Your task to perform on an android device: allow notifications from all sites in the chrome app Image 0: 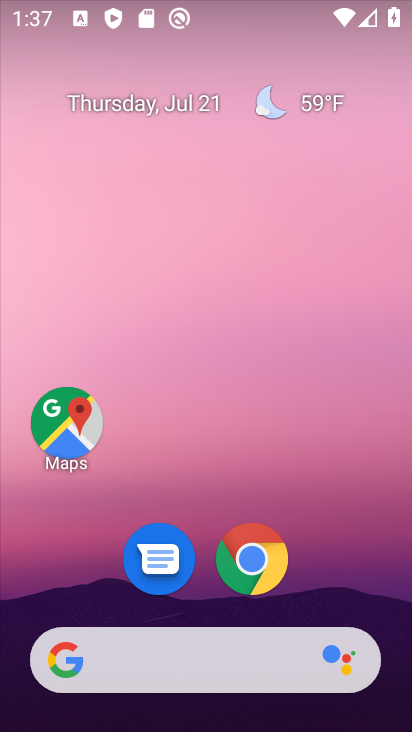
Step 0: drag from (244, 699) to (176, 116)
Your task to perform on an android device: allow notifications from all sites in the chrome app Image 1: 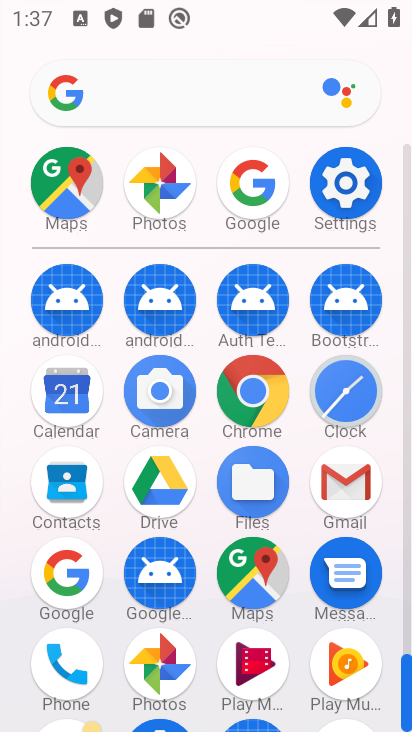
Step 1: click (259, 388)
Your task to perform on an android device: allow notifications from all sites in the chrome app Image 2: 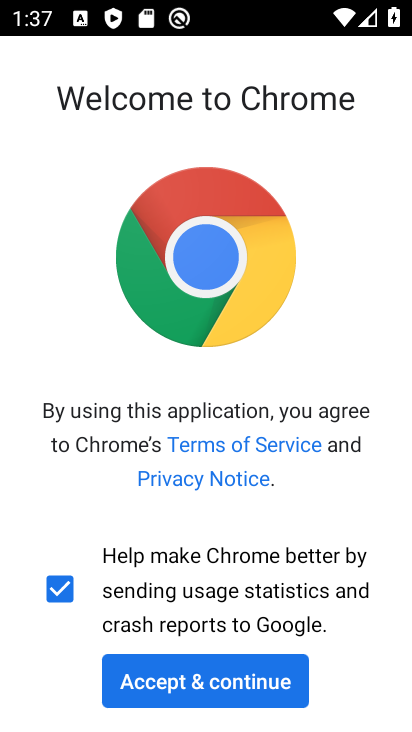
Step 2: click (186, 688)
Your task to perform on an android device: allow notifications from all sites in the chrome app Image 3: 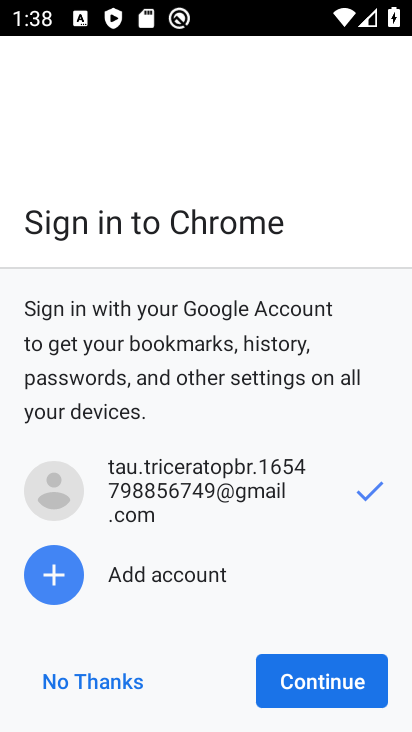
Step 3: click (327, 672)
Your task to perform on an android device: allow notifications from all sites in the chrome app Image 4: 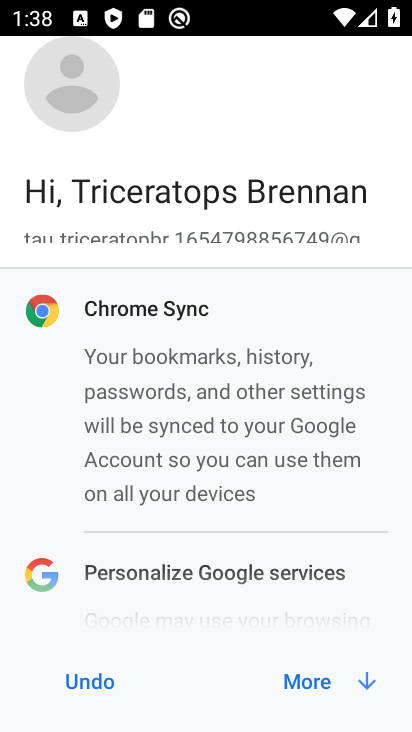
Step 4: click (326, 692)
Your task to perform on an android device: allow notifications from all sites in the chrome app Image 5: 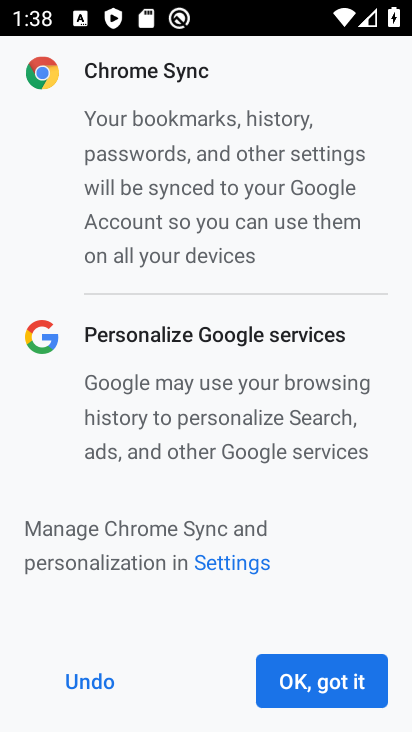
Step 5: click (323, 689)
Your task to perform on an android device: allow notifications from all sites in the chrome app Image 6: 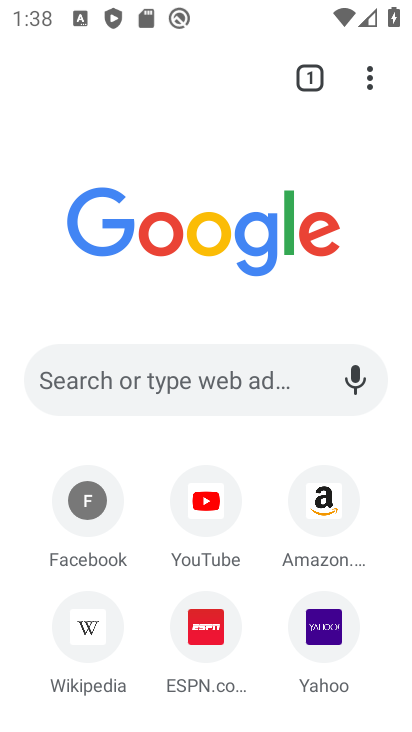
Step 6: click (376, 68)
Your task to perform on an android device: allow notifications from all sites in the chrome app Image 7: 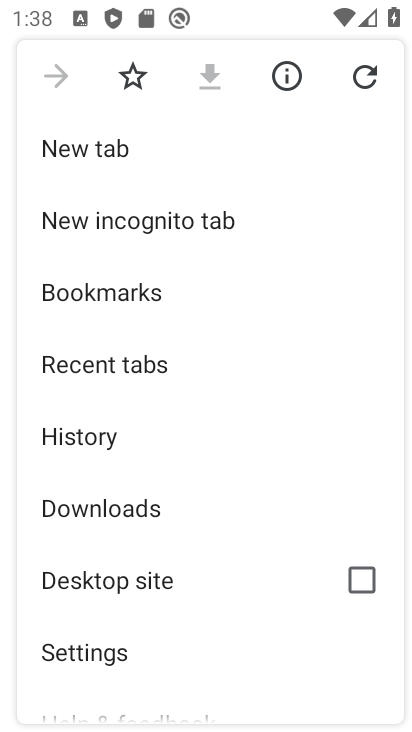
Step 7: drag from (179, 580) to (129, 160)
Your task to perform on an android device: allow notifications from all sites in the chrome app Image 8: 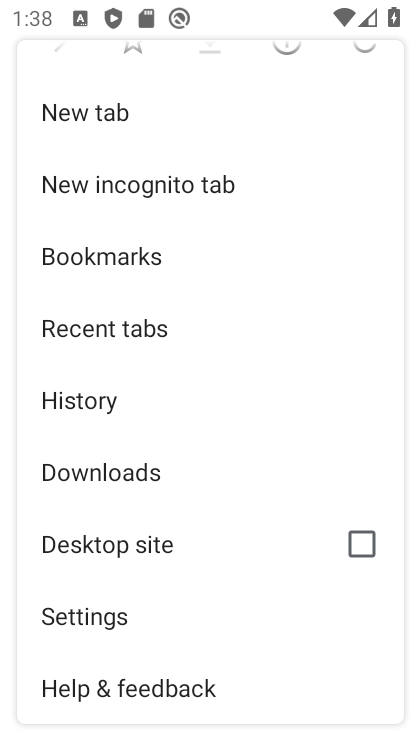
Step 8: click (60, 618)
Your task to perform on an android device: allow notifications from all sites in the chrome app Image 9: 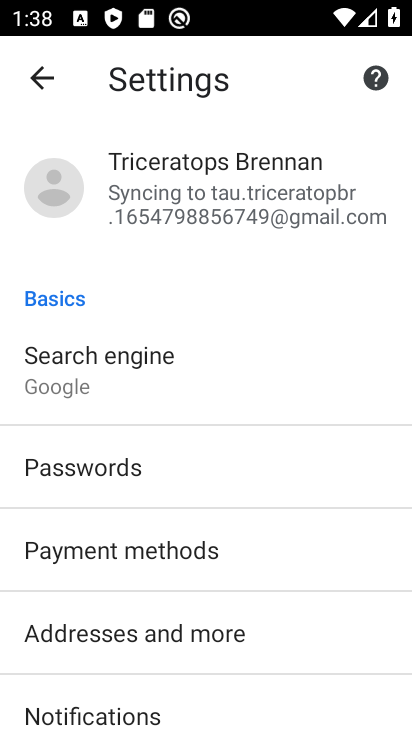
Step 9: drag from (156, 618) to (300, 128)
Your task to perform on an android device: allow notifications from all sites in the chrome app Image 10: 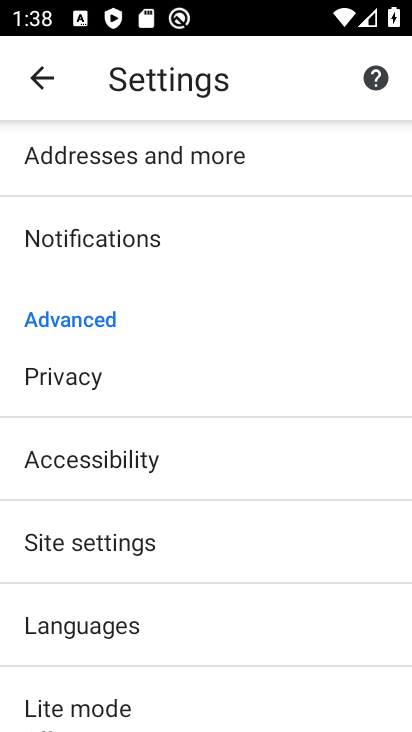
Step 10: drag from (212, 470) to (181, 140)
Your task to perform on an android device: allow notifications from all sites in the chrome app Image 11: 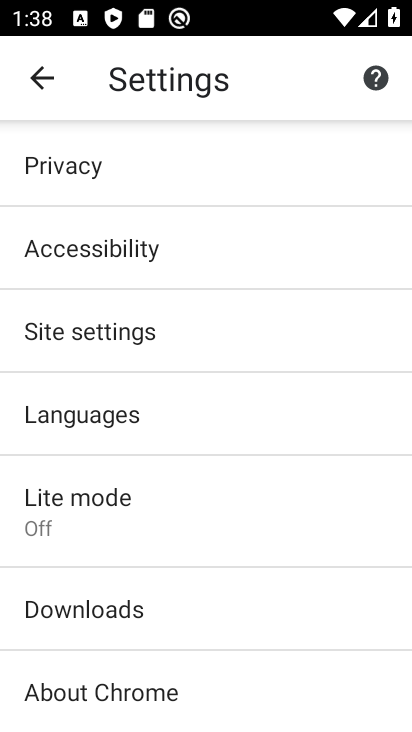
Step 11: drag from (199, 277) to (209, 666)
Your task to perform on an android device: allow notifications from all sites in the chrome app Image 12: 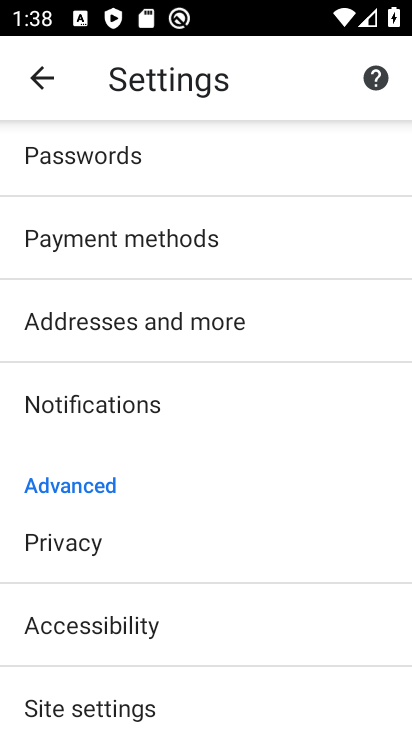
Step 12: click (100, 413)
Your task to perform on an android device: allow notifications from all sites in the chrome app Image 13: 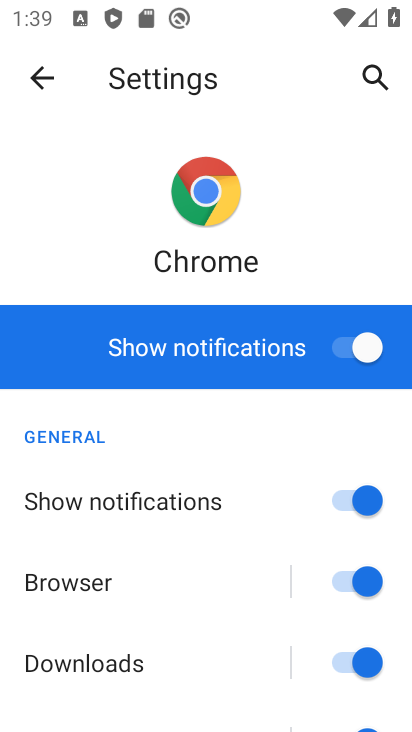
Step 13: task complete